Your task to perform on an android device: Go to Maps Image 0: 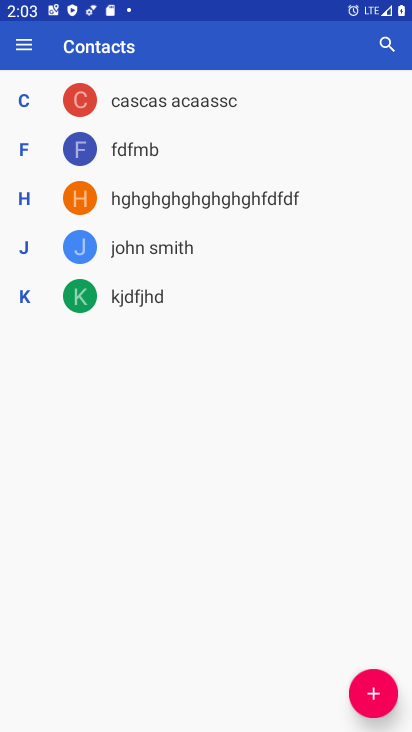
Step 0: press home button
Your task to perform on an android device: Go to Maps Image 1: 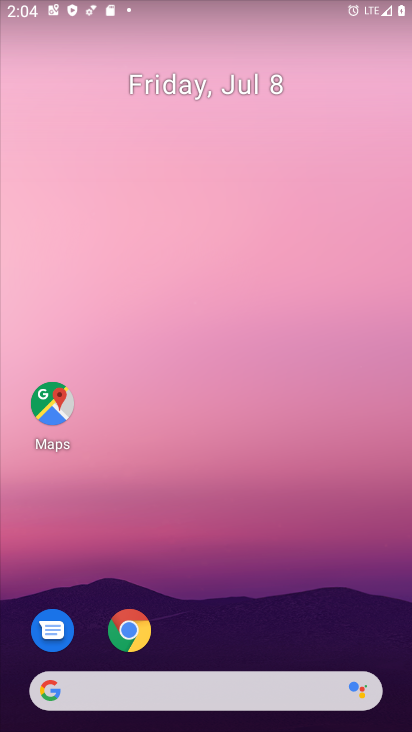
Step 1: click (56, 403)
Your task to perform on an android device: Go to Maps Image 2: 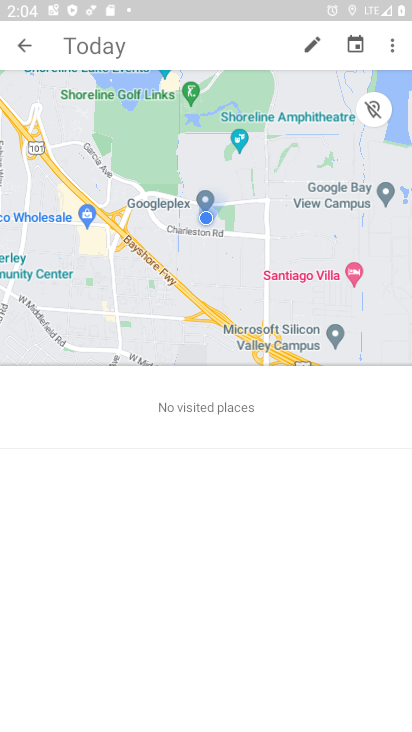
Step 2: click (22, 45)
Your task to perform on an android device: Go to Maps Image 3: 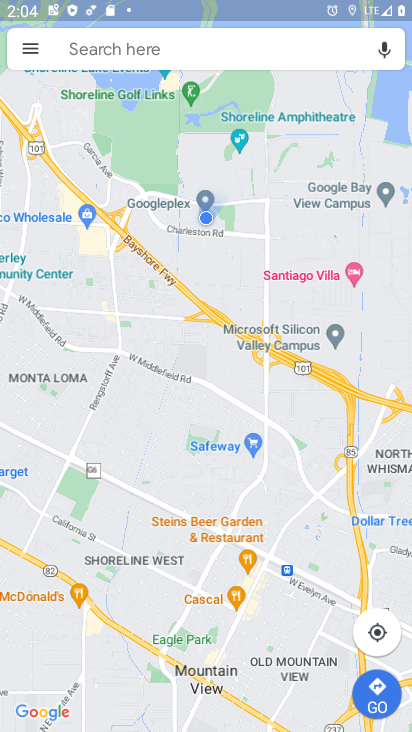
Step 3: task complete